Your task to perform on an android device: Search for pizza restaurants on Maps Image 0: 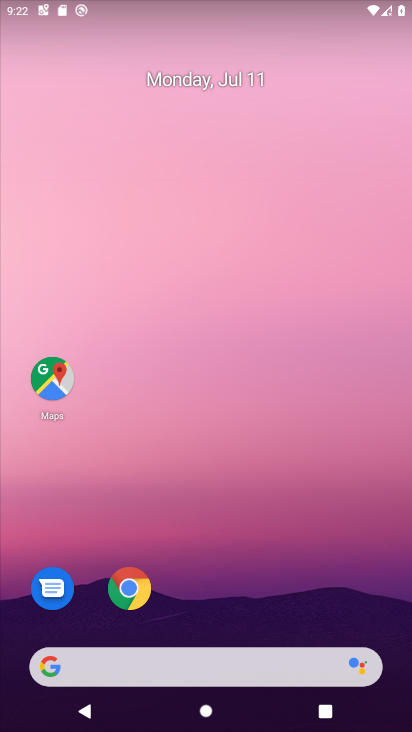
Step 0: drag from (250, 597) to (235, 327)
Your task to perform on an android device: Search for pizza restaurants on Maps Image 1: 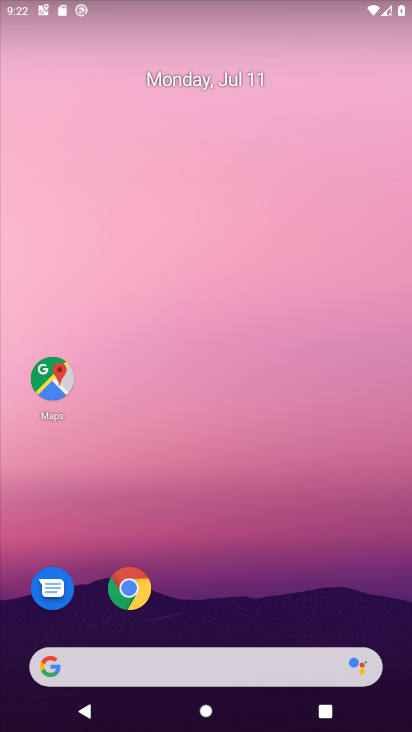
Step 1: click (42, 374)
Your task to perform on an android device: Search for pizza restaurants on Maps Image 2: 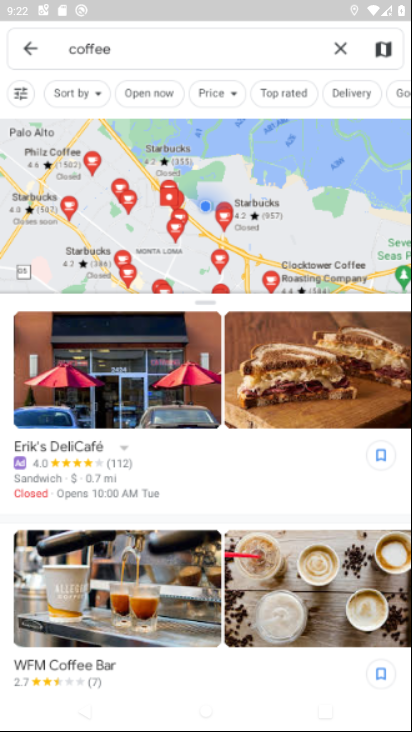
Step 2: click (336, 39)
Your task to perform on an android device: Search for pizza restaurants on Maps Image 3: 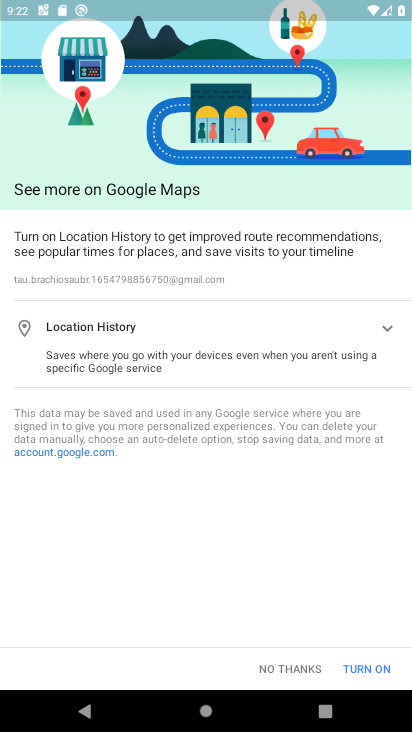
Step 3: click (292, 670)
Your task to perform on an android device: Search for pizza restaurants on Maps Image 4: 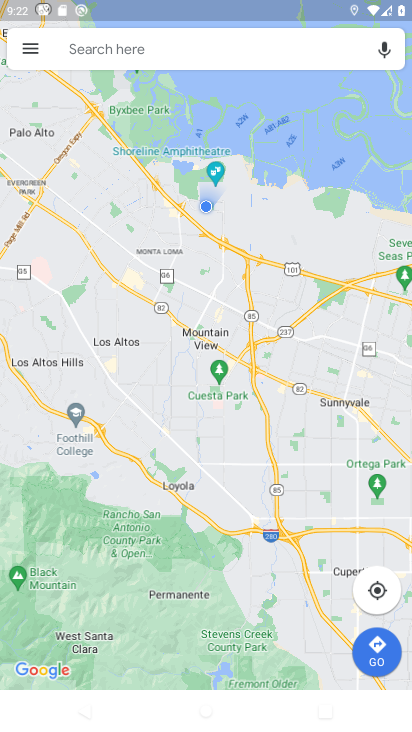
Step 4: click (165, 43)
Your task to perform on an android device: Search for pizza restaurants on Maps Image 5: 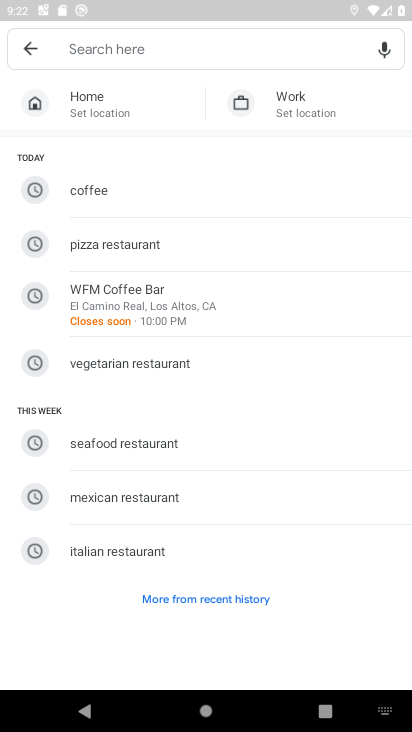
Step 5: click (173, 255)
Your task to perform on an android device: Search for pizza restaurants on Maps Image 6: 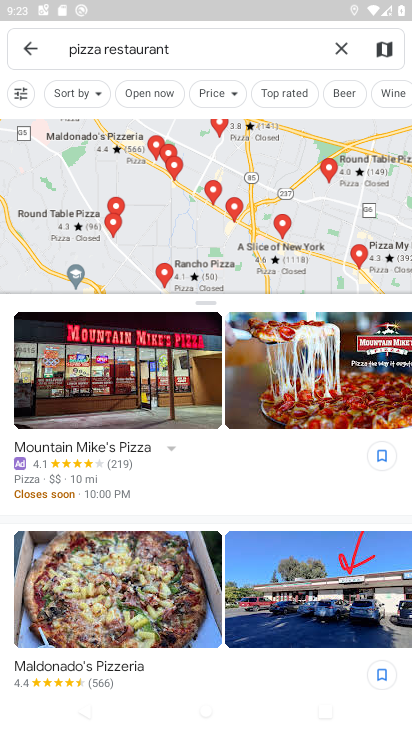
Step 6: task complete